Your task to perform on an android device: Search for Mexican restaurants on Maps Image 0: 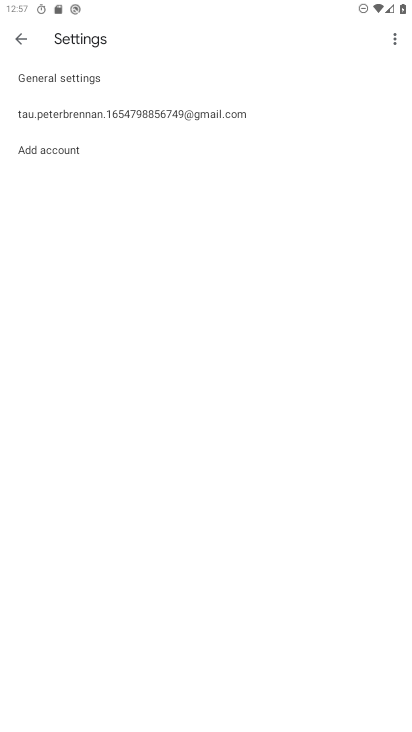
Step 0: press home button
Your task to perform on an android device: Search for Mexican restaurants on Maps Image 1: 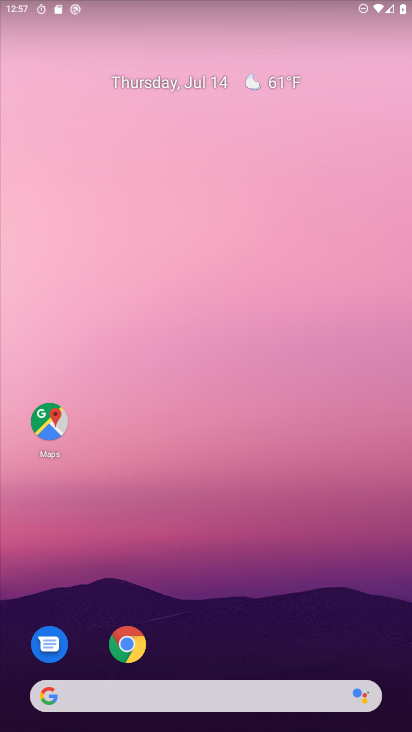
Step 1: drag from (154, 678) to (151, 52)
Your task to perform on an android device: Search for Mexican restaurants on Maps Image 2: 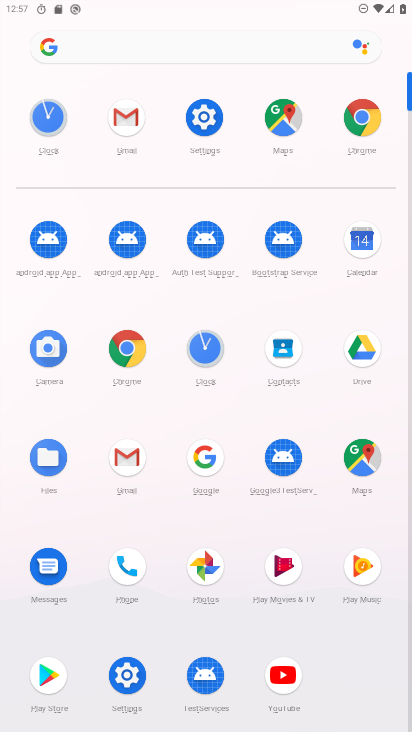
Step 2: click (361, 468)
Your task to perform on an android device: Search for Mexican restaurants on Maps Image 3: 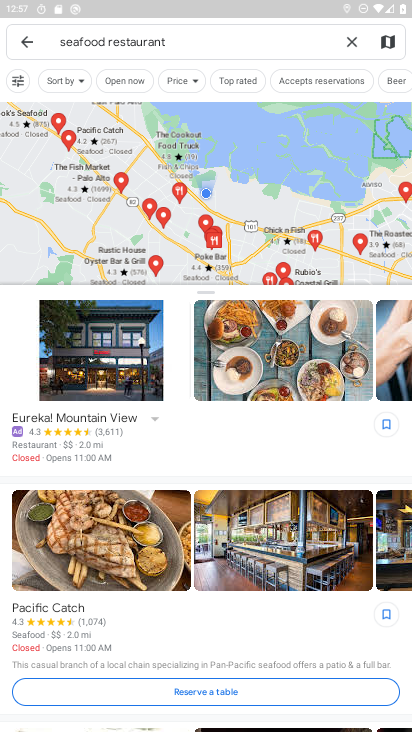
Step 3: press back button
Your task to perform on an android device: Search for Mexican restaurants on Maps Image 4: 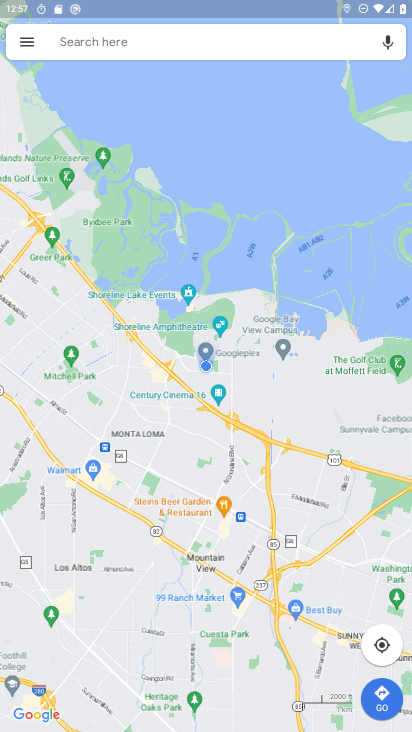
Step 4: click (128, 44)
Your task to perform on an android device: Search for Mexican restaurants on Maps Image 5: 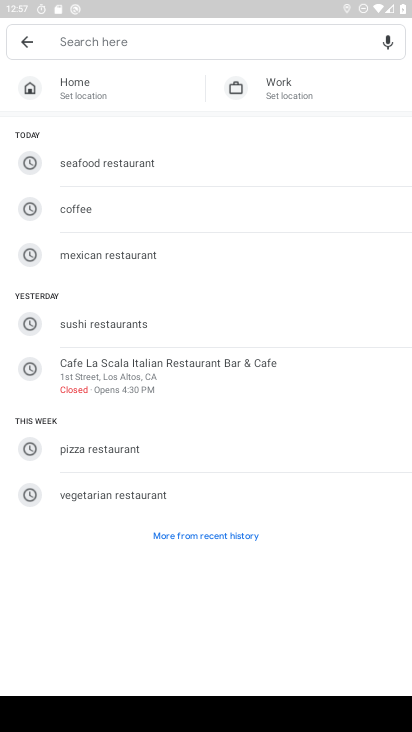
Step 5: click (124, 259)
Your task to perform on an android device: Search for Mexican restaurants on Maps Image 6: 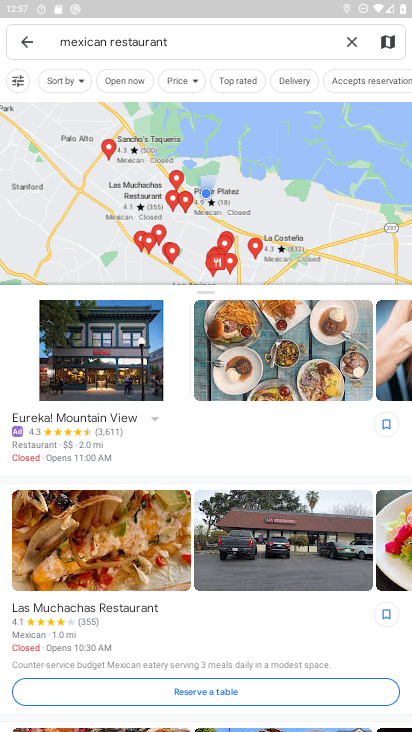
Step 6: task complete